Your task to perform on an android device: Go to eBay Image 0: 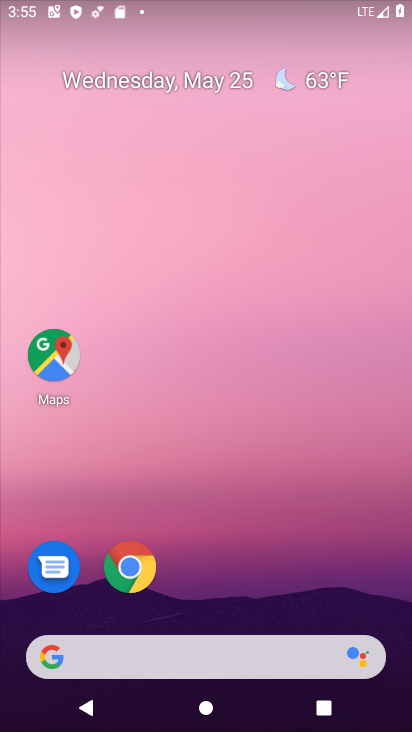
Step 0: press home button
Your task to perform on an android device: Go to eBay Image 1: 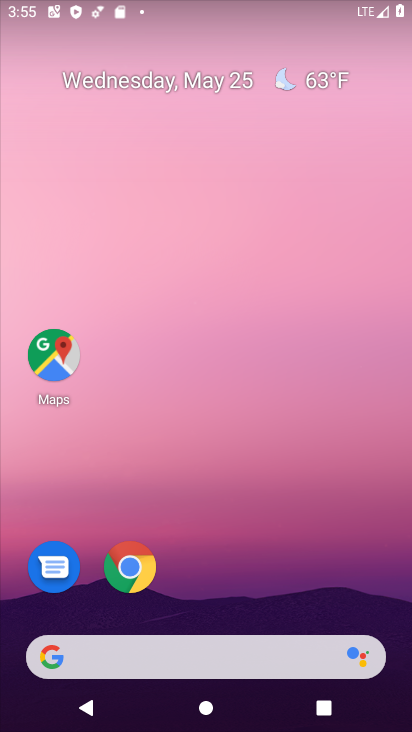
Step 1: drag from (284, 603) to (177, 6)
Your task to perform on an android device: Go to eBay Image 2: 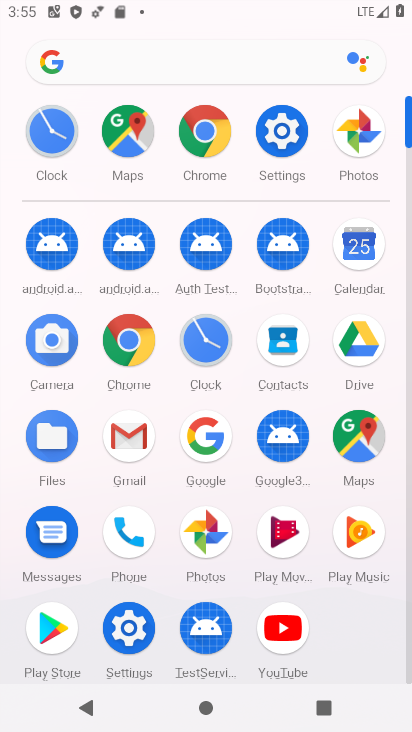
Step 2: click (202, 169)
Your task to perform on an android device: Go to eBay Image 3: 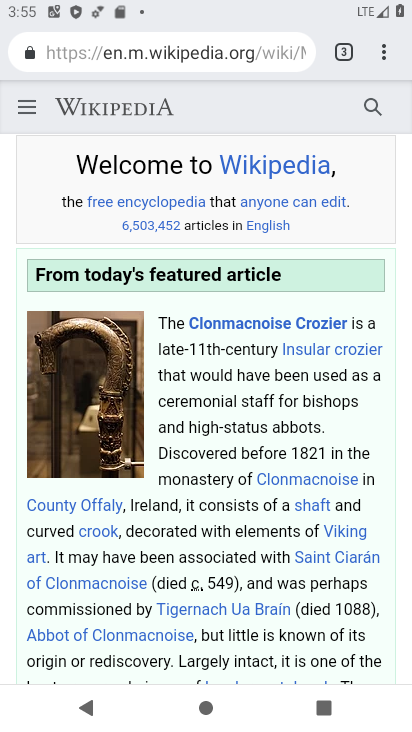
Step 3: click (145, 52)
Your task to perform on an android device: Go to eBay Image 4: 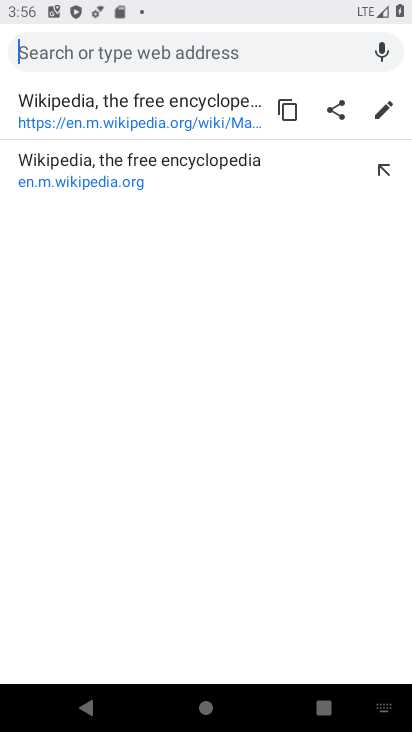
Step 4: type "eBay"
Your task to perform on an android device: Go to eBay Image 5: 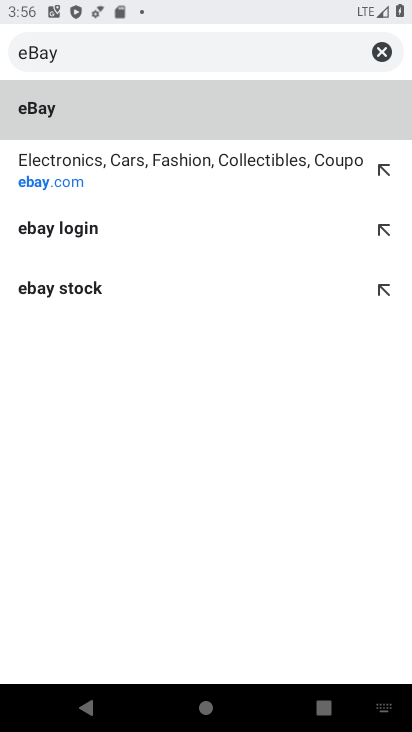
Step 5: click (196, 175)
Your task to perform on an android device: Go to eBay Image 6: 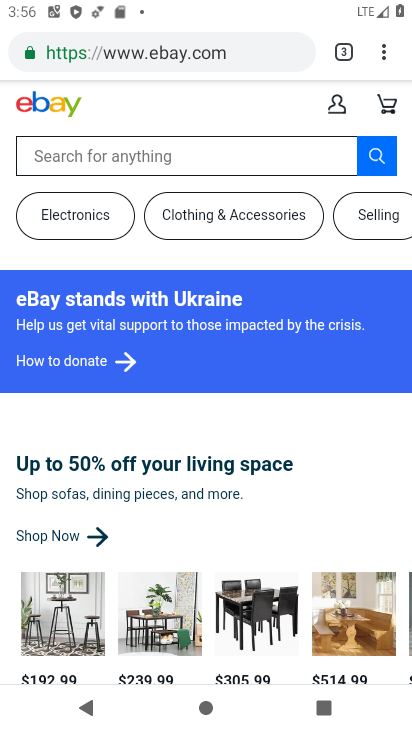
Step 6: task complete